Your task to perform on an android device: Go to Google maps Image 0: 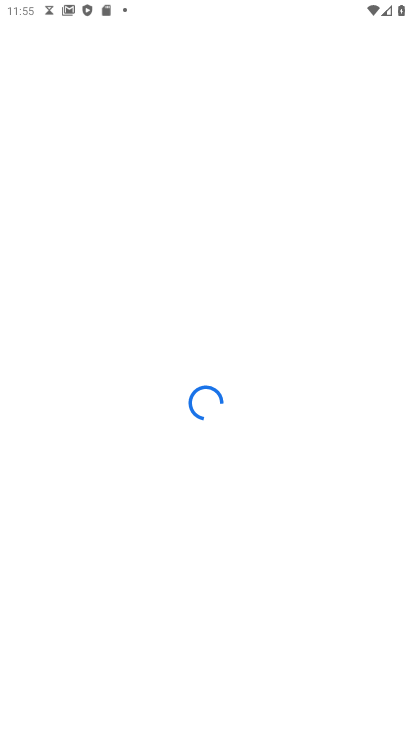
Step 0: press home button
Your task to perform on an android device: Go to Google maps Image 1: 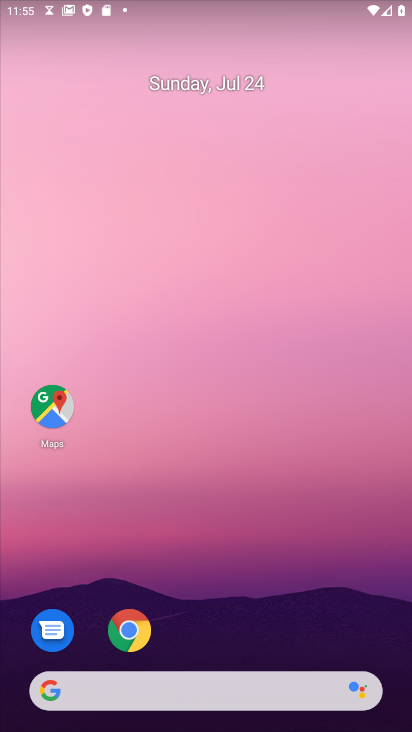
Step 1: click (43, 402)
Your task to perform on an android device: Go to Google maps Image 2: 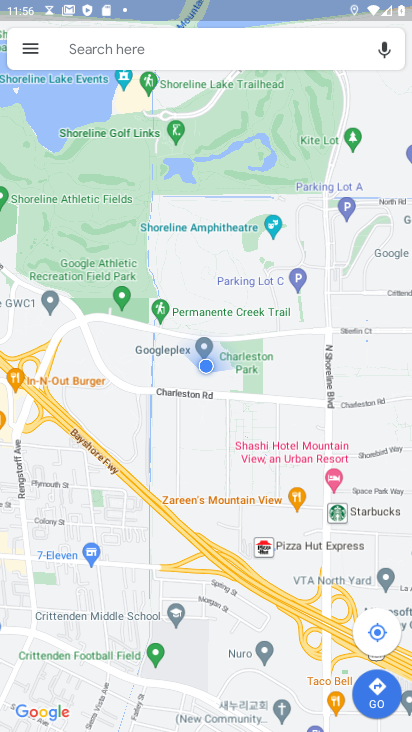
Step 2: task complete